Your task to perform on an android device: Open wifi settings Image 0: 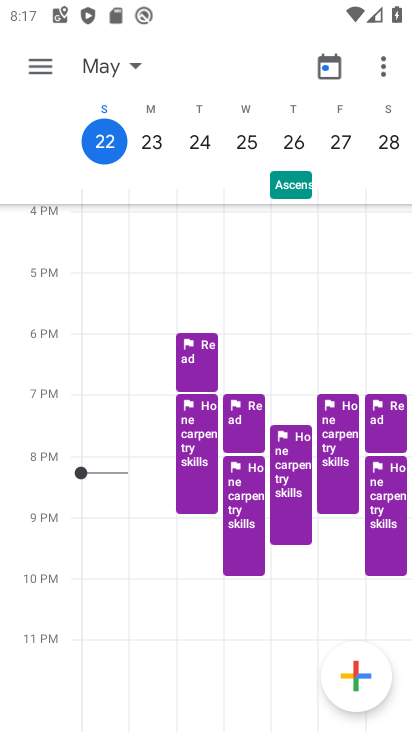
Step 0: press home button
Your task to perform on an android device: Open wifi settings Image 1: 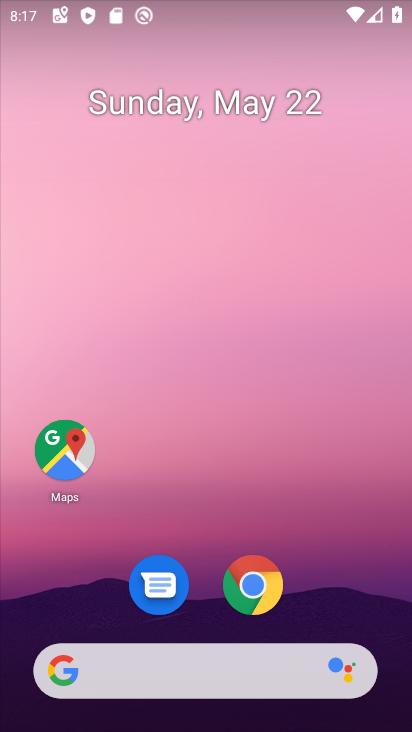
Step 1: drag from (226, 490) to (242, 25)
Your task to perform on an android device: Open wifi settings Image 2: 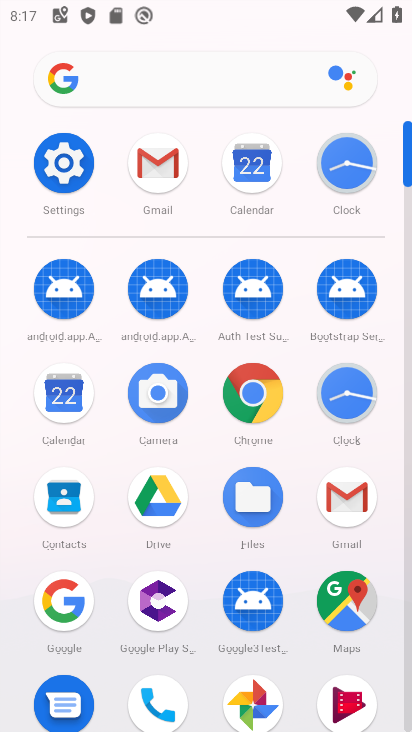
Step 2: click (76, 155)
Your task to perform on an android device: Open wifi settings Image 3: 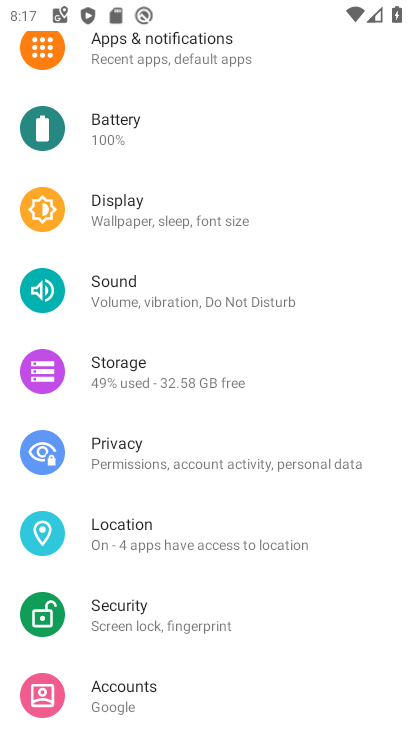
Step 3: drag from (194, 272) to (211, 671)
Your task to perform on an android device: Open wifi settings Image 4: 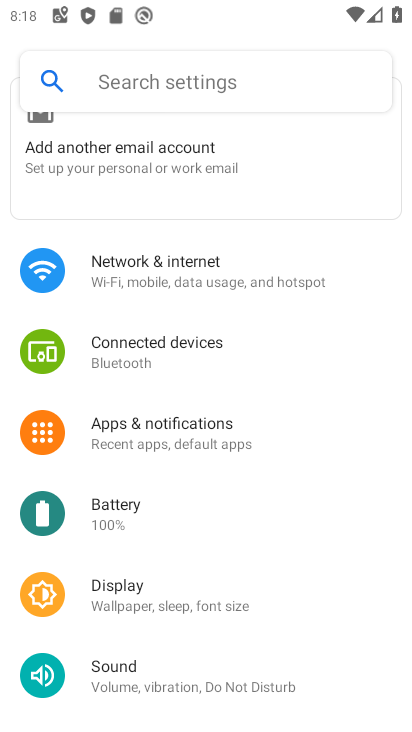
Step 4: click (222, 268)
Your task to perform on an android device: Open wifi settings Image 5: 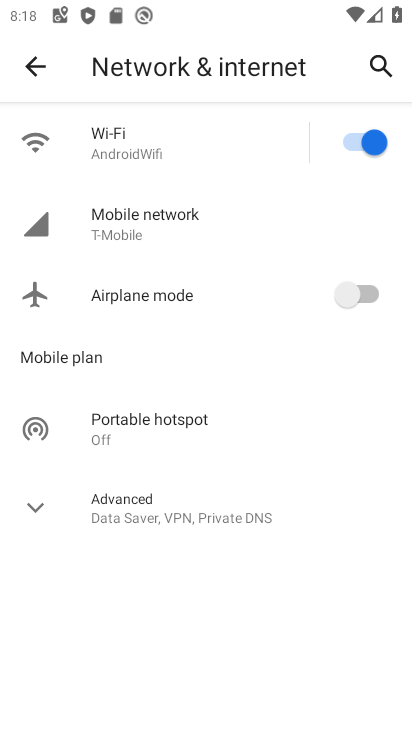
Step 5: click (127, 132)
Your task to perform on an android device: Open wifi settings Image 6: 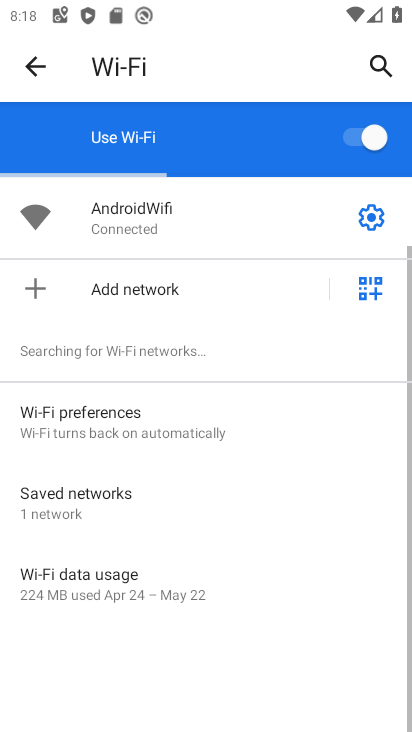
Step 6: task complete